Your task to perform on an android device: What's the weather today? Image 0: 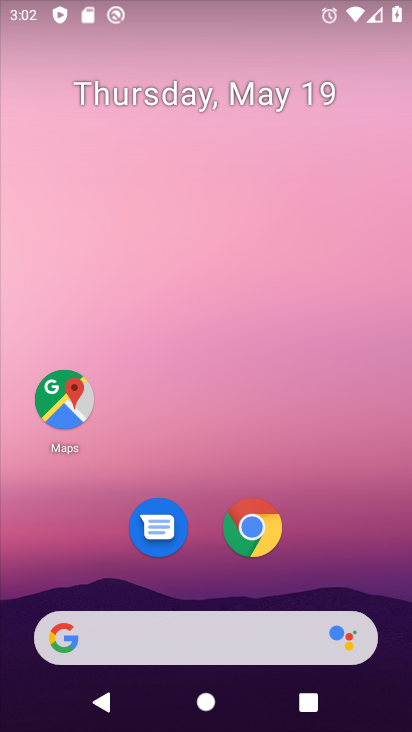
Step 0: drag from (188, 601) to (284, 77)
Your task to perform on an android device: What's the weather today? Image 1: 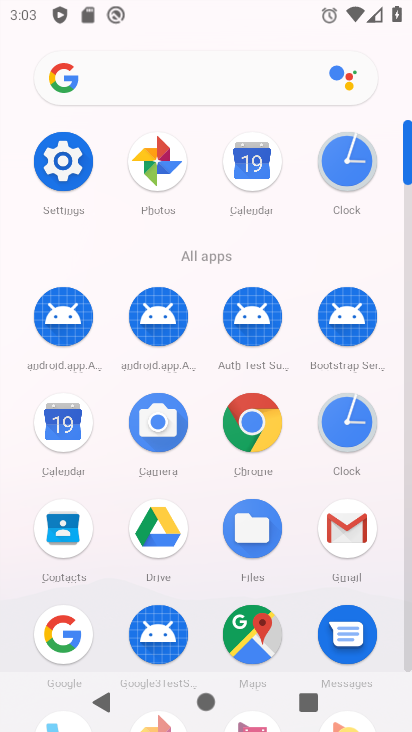
Step 1: click (164, 93)
Your task to perform on an android device: What's the weather today? Image 2: 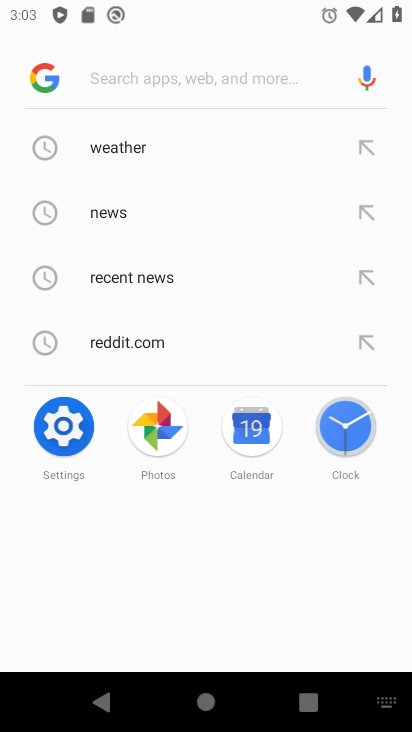
Step 2: click (137, 141)
Your task to perform on an android device: What's the weather today? Image 3: 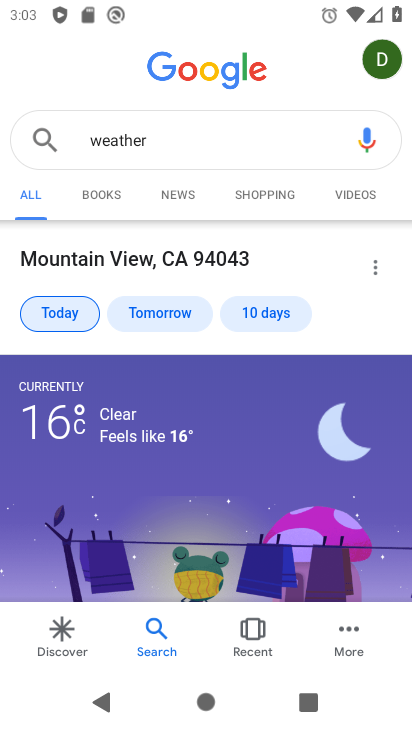
Step 3: task complete